Your task to perform on an android device: turn off location history Image 0: 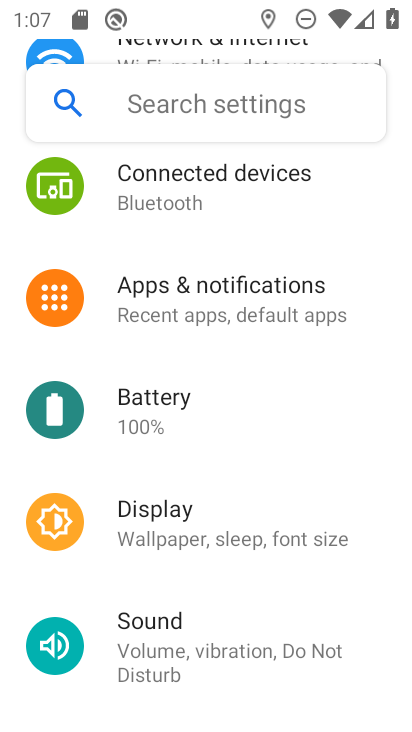
Step 0: press home button
Your task to perform on an android device: turn off location history Image 1: 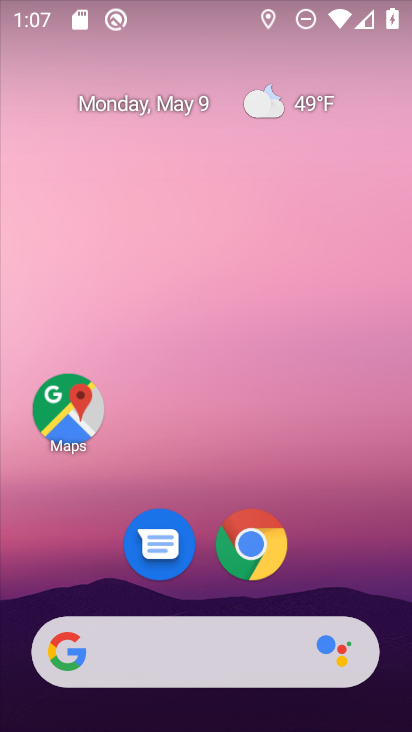
Step 1: drag from (367, 551) to (400, 78)
Your task to perform on an android device: turn off location history Image 2: 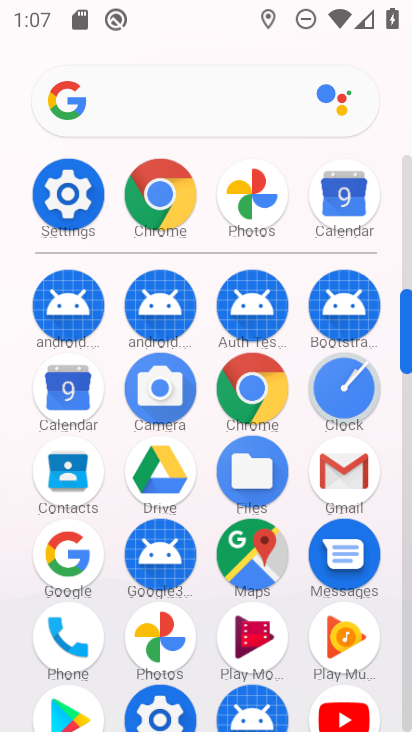
Step 2: click (54, 215)
Your task to perform on an android device: turn off location history Image 3: 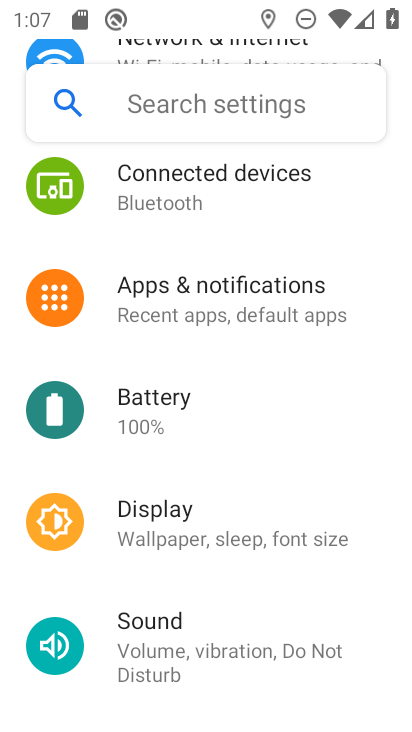
Step 3: drag from (234, 612) to (192, 243)
Your task to perform on an android device: turn off location history Image 4: 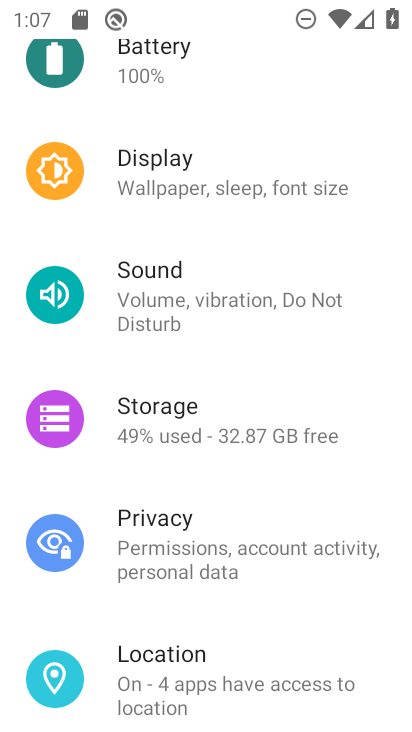
Step 4: drag from (160, 609) to (191, 299)
Your task to perform on an android device: turn off location history Image 5: 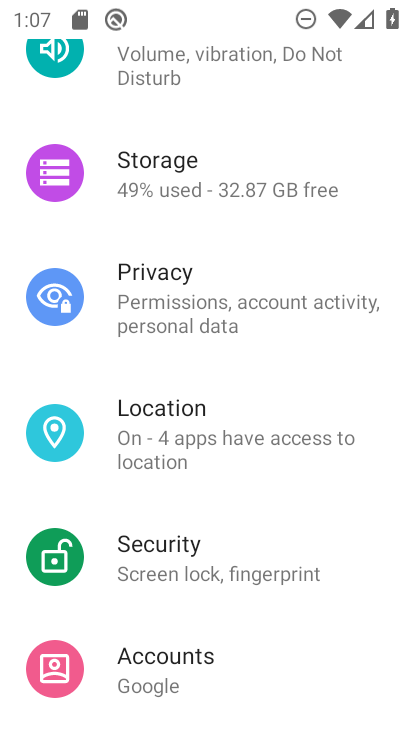
Step 5: click (190, 423)
Your task to perform on an android device: turn off location history Image 6: 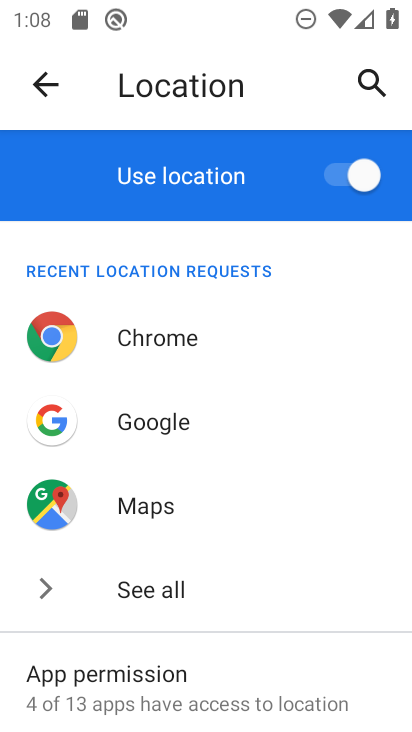
Step 6: click (342, 178)
Your task to perform on an android device: turn off location history Image 7: 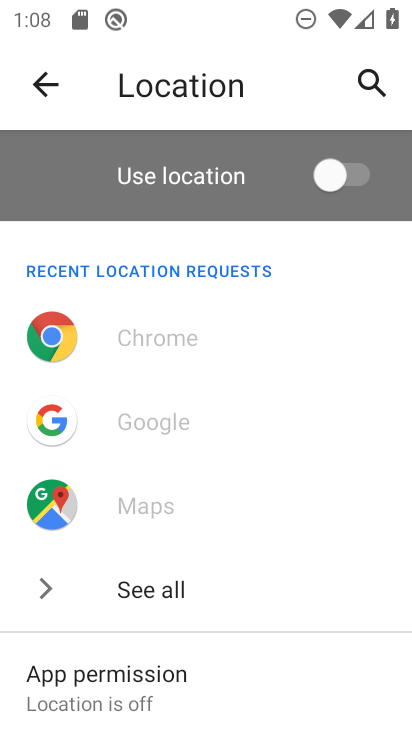
Step 7: task complete